Your task to perform on an android device: open a new tab in the chrome app Image 0: 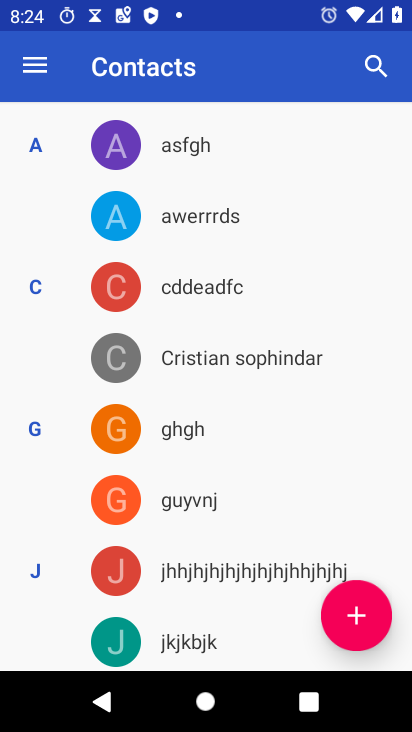
Step 0: press home button
Your task to perform on an android device: open a new tab in the chrome app Image 1: 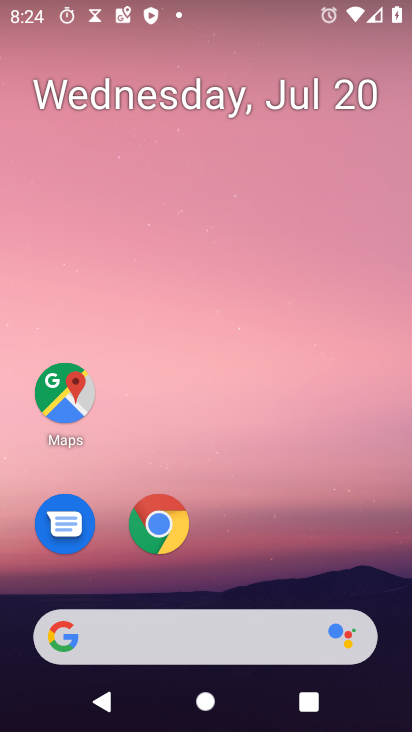
Step 1: click (160, 532)
Your task to perform on an android device: open a new tab in the chrome app Image 2: 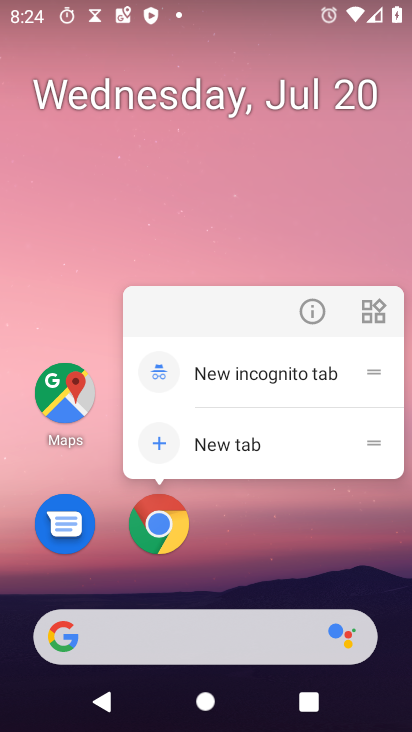
Step 2: click (164, 527)
Your task to perform on an android device: open a new tab in the chrome app Image 3: 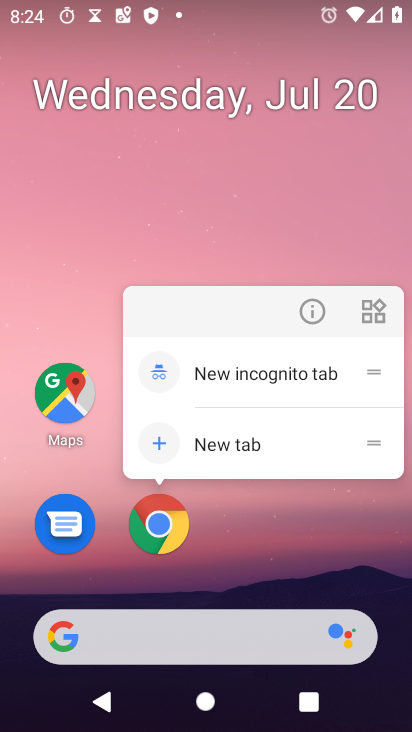
Step 3: click (156, 528)
Your task to perform on an android device: open a new tab in the chrome app Image 4: 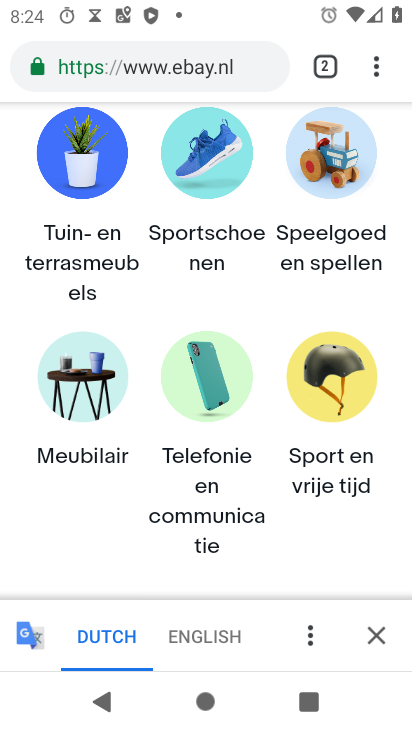
Step 4: task complete